Your task to perform on an android device: Show me productivity apps on the Play Store Image 0: 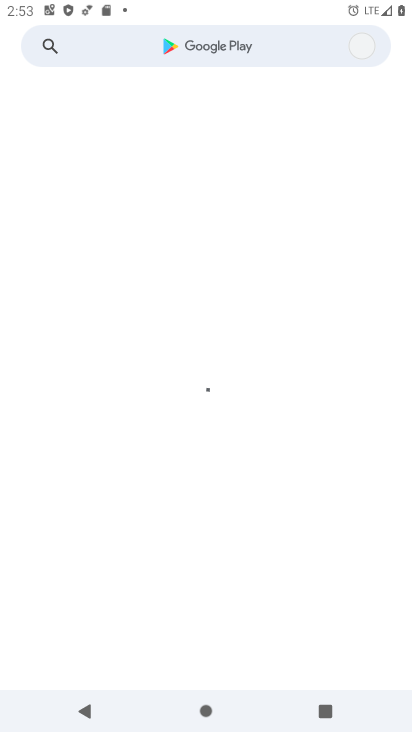
Step 0: press back button
Your task to perform on an android device: Show me productivity apps on the Play Store Image 1: 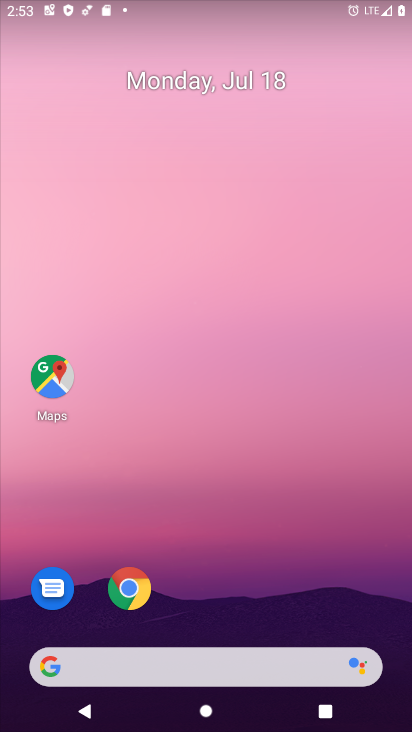
Step 1: drag from (232, 532) to (227, 44)
Your task to perform on an android device: Show me productivity apps on the Play Store Image 2: 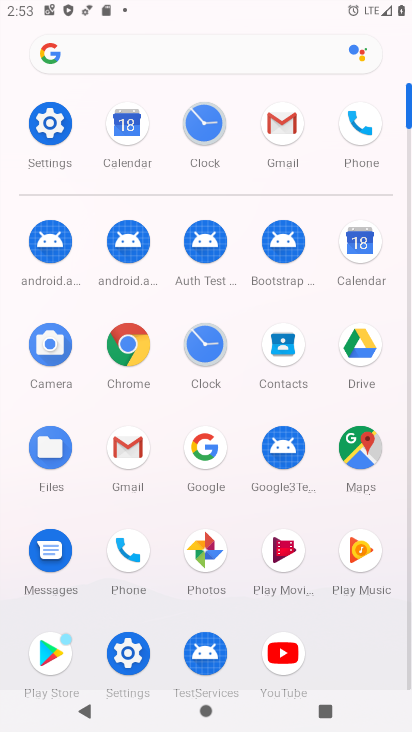
Step 2: click (48, 643)
Your task to perform on an android device: Show me productivity apps on the Play Store Image 3: 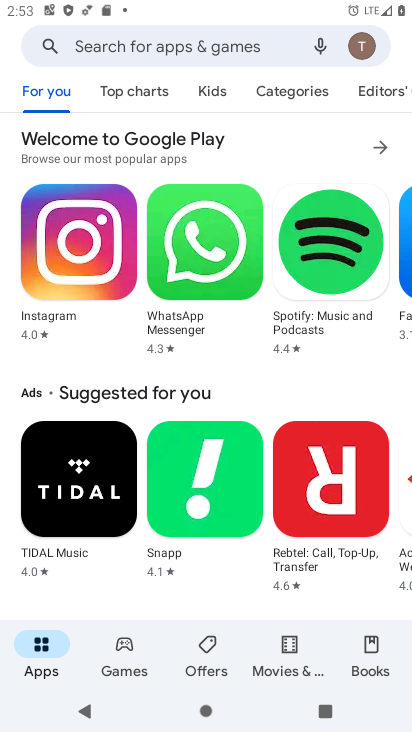
Step 3: drag from (201, 558) to (264, 73)
Your task to perform on an android device: Show me productivity apps on the Play Store Image 4: 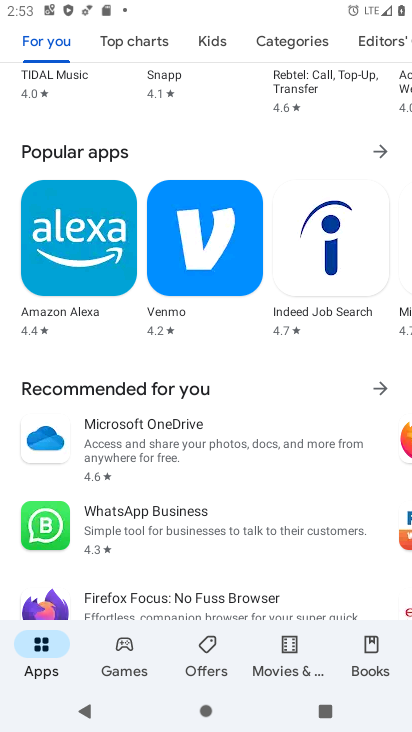
Step 4: drag from (195, 553) to (242, 25)
Your task to perform on an android device: Show me productivity apps on the Play Store Image 5: 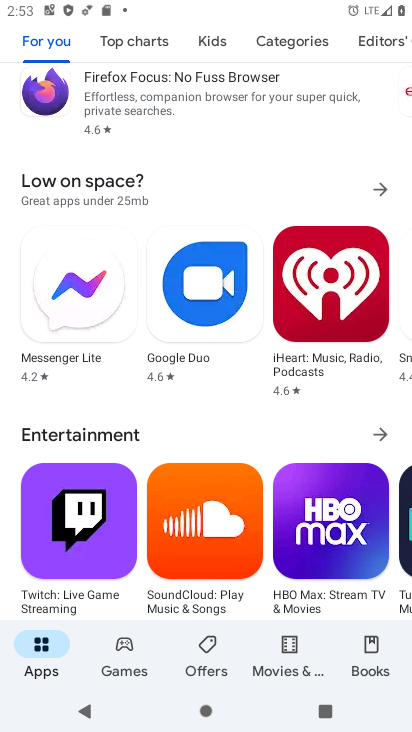
Step 5: drag from (213, 530) to (283, 5)
Your task to perform on an android device: Show me productivity apps on the Play Store Image 6: 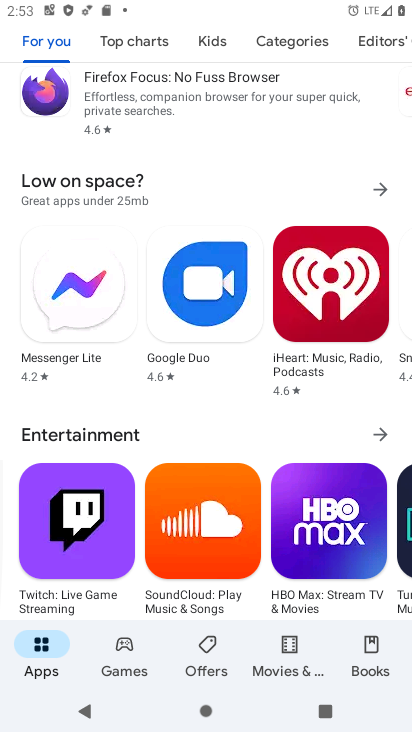
Step 6: drag from (201, 494) to (248, 100)
Your task to perform on an android device: Show me productivity apps on the Play Store Image 7: 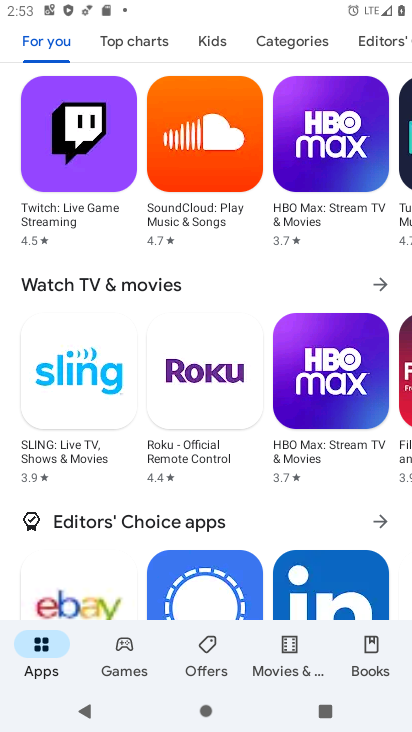
Step 7: drag from (171, 576) to (257, 125)
Your task to perform on an android device: Show me productivity apps on the Play Store Image 8: 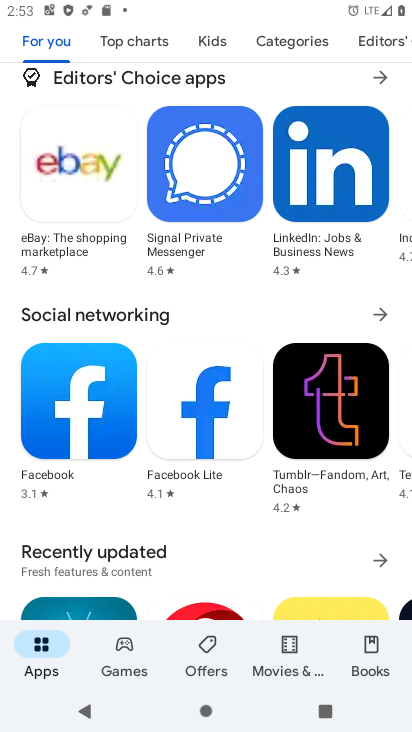
Step 8: drag from (193, 533) to (256, 82)
Your task to perform on an android device: Show me productivity apps on the Play Store Image 9: 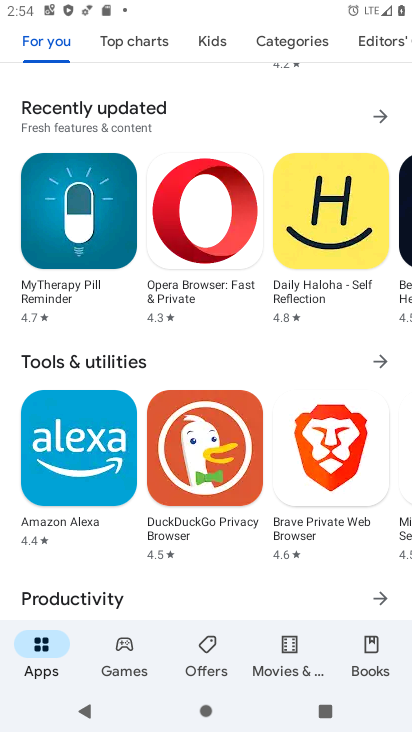
Step 9: drag from (168, 506) to (230, 239)
Your task to perform on an android device: Show me productivity apps on the Play Store Image 10: 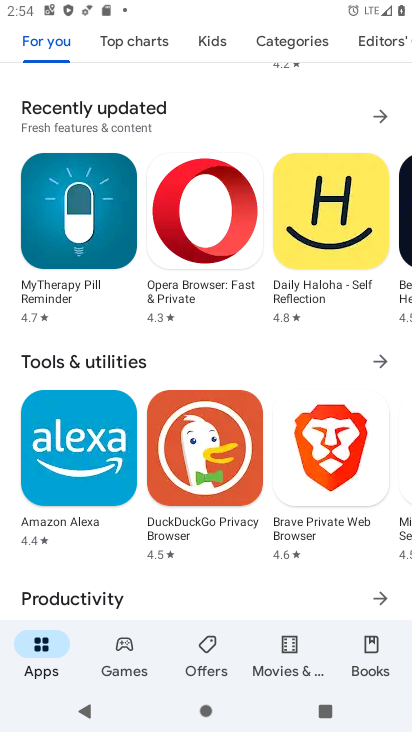
Step 10: click (377, 599)
Your task to perform on an android device: Show me productivity apps on the Play Store Image 11: 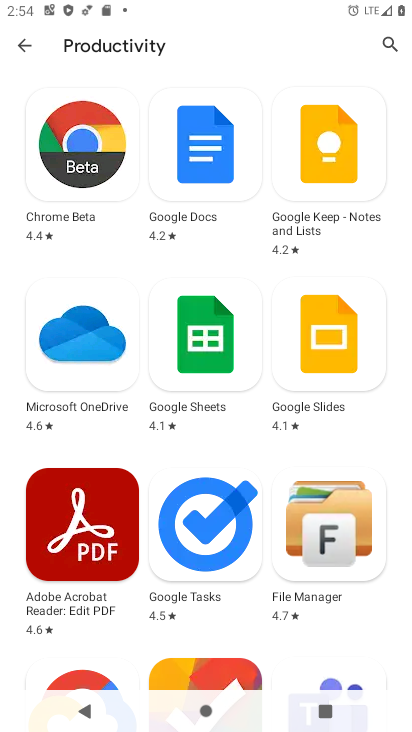
Step 11: task complete